Your task to perform on an android device: Open internet settings Image 0: 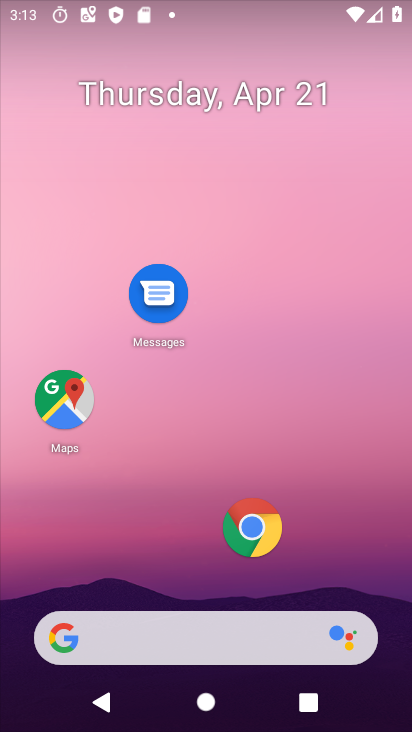
Step 0: drag from (178, 562) to (311, 127)
Your task to perform on an android device: Open internet settings Image 1: 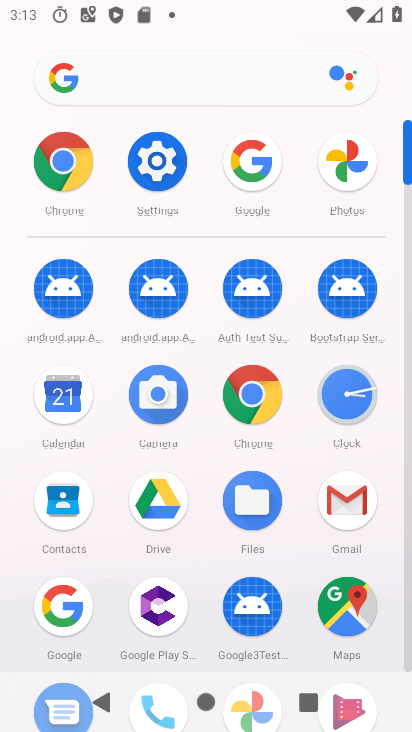
Step 1: click (144, 167)
Your task to perform on an android device: Open internet settings Image 2: 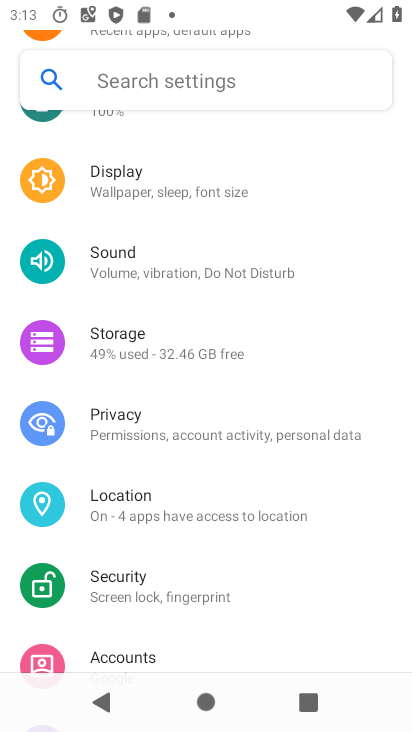
Step 2: drag from (146, 167) to (147, 508)
Your task to perform on an android device: Open internet settings Image 3: 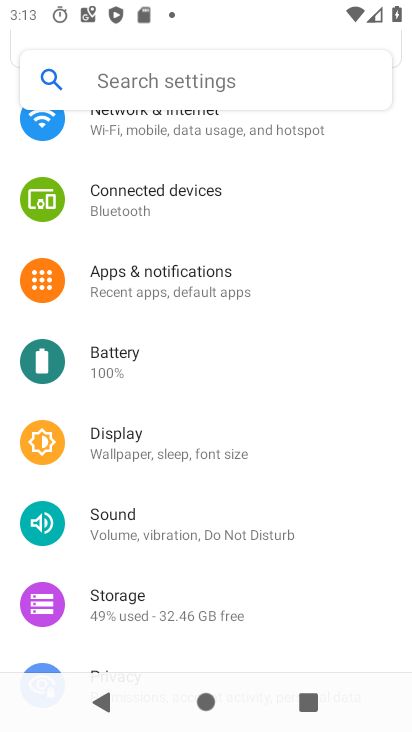
Step 3: click (158, 123)
Your task to perform on an android device: Open internet settings Image 4: 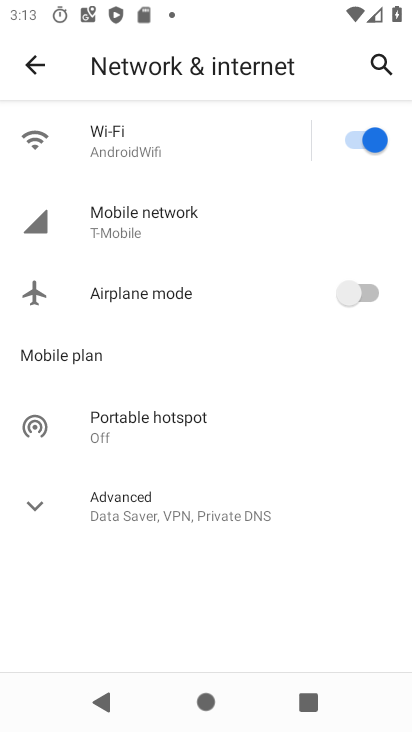
Step 4: click (127, 517)
Your task to perform on an android device: Open internet settings Image 5: 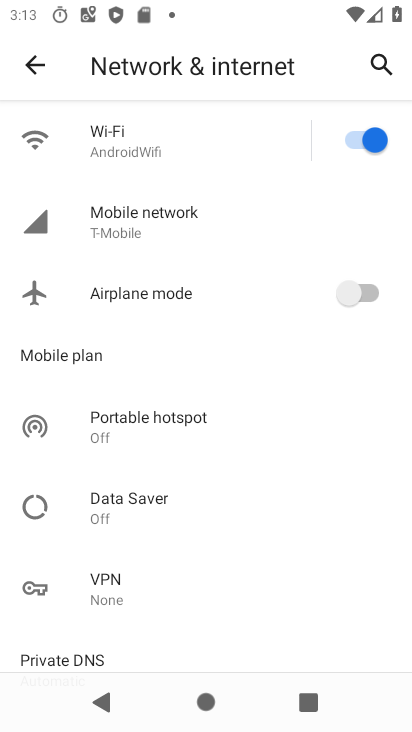
Step 5: drag from (128, 625) to (219, 351)
Your task to perform on an android device: Open internet settings Image 6: 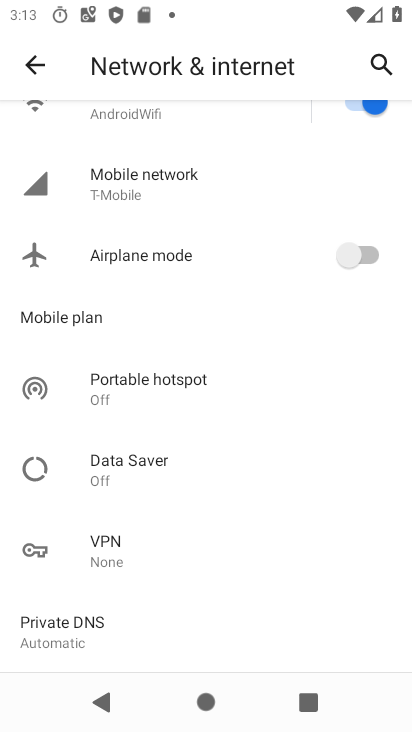
Step 6: click (136, 183)
Your task to perform on an android device: Open internet settings Image 7: 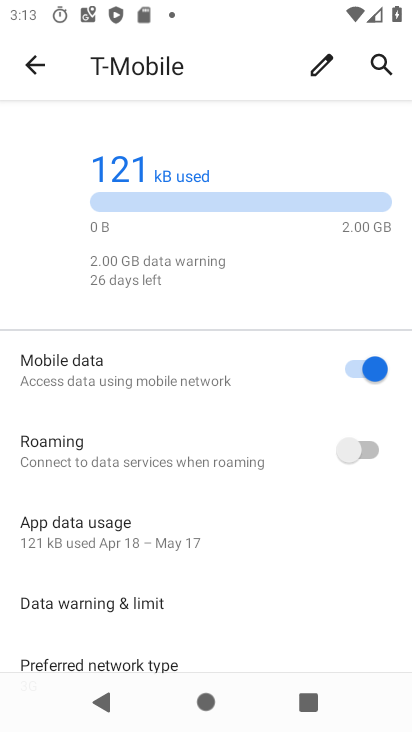
Step 7: drag from (116, 628) to (188, 367)
Your task to perform on an android device: Open internet settings Image 8: 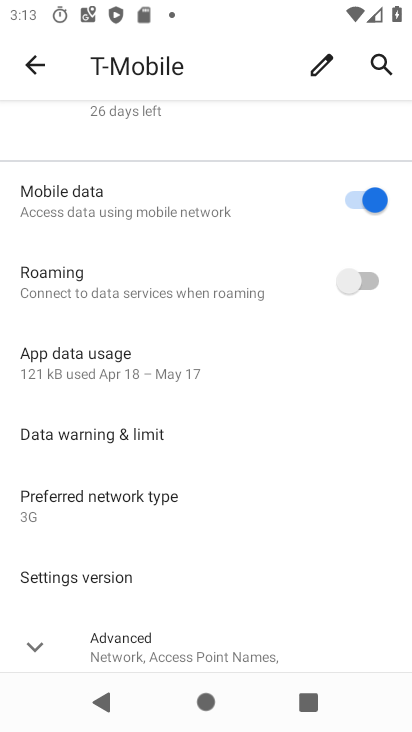
Step 8: click (67, 583)
Your task to perform on an android device: Open internet settings Image 9: 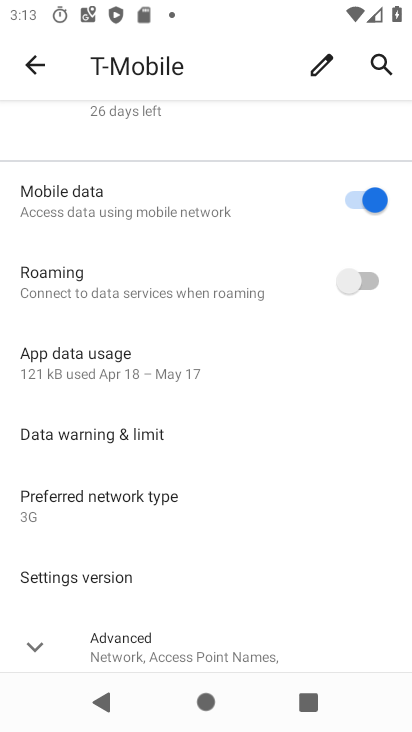
Step 9: click (106, 641)
Your task to perform on an android device: Open internet settings Image 10: 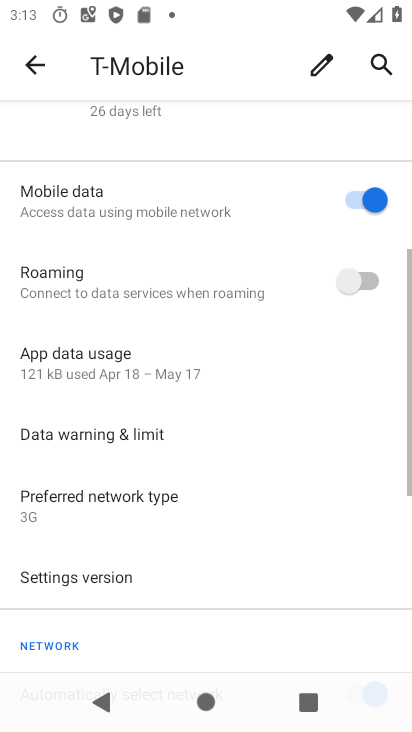
Step 10: task complete